Your task to perform on an android device: Open the calendar app, open the side menu, and click the "Day" option Image 0: 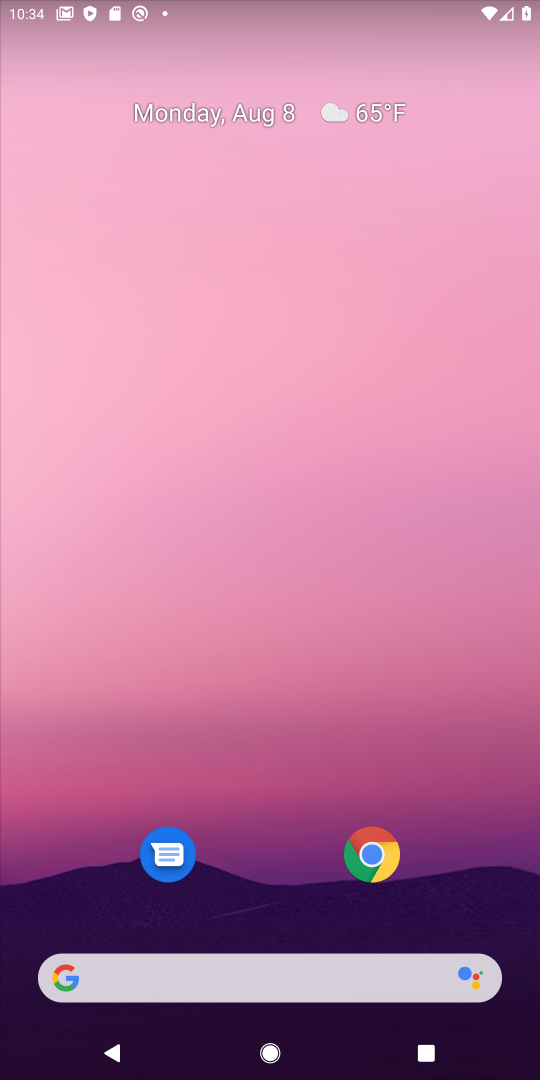
Step 0: click (202, 104)
Your task to perform on an android device: Open the calendar app, open the side menu, and click the "Day" option Image 1: 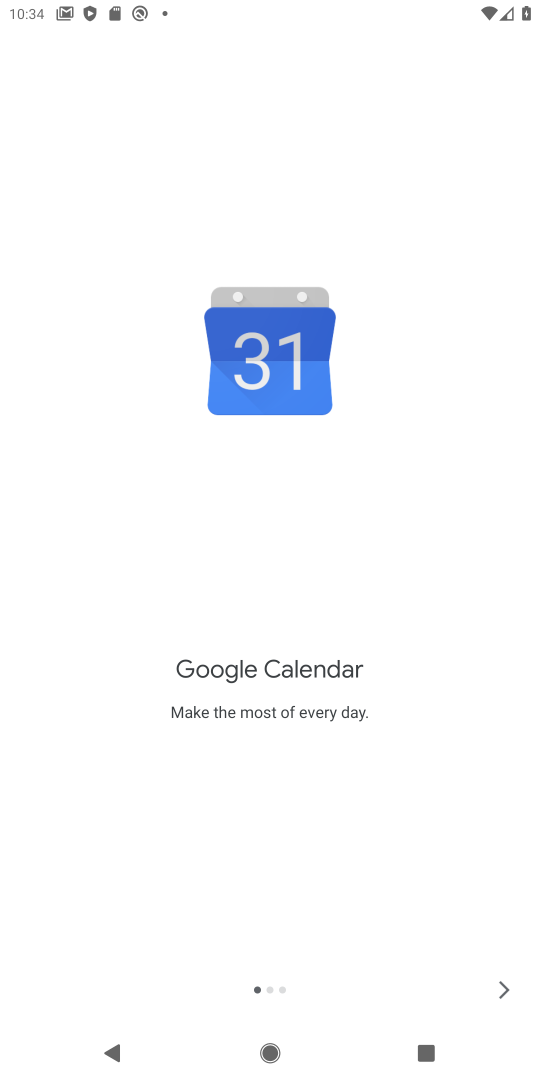
Step 1: click (497, 978)
Your task to perform on an android device: Open the calendar app, open the side menu, and click the "Day" option Image 2: 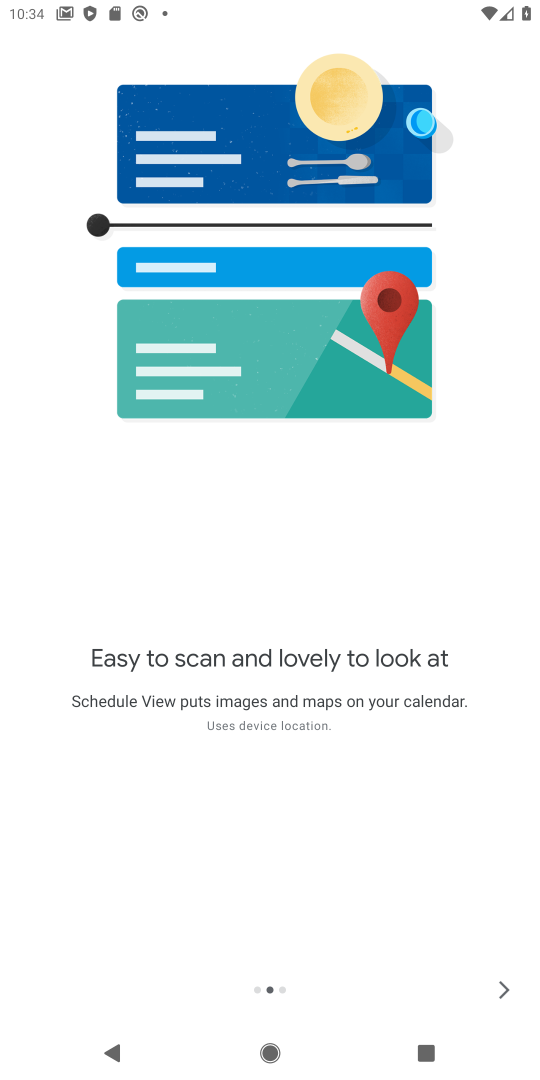
Step 2: click (497, 978)
Your task to perform on an android device: Open the calendar app, open the side menu, and click the "Day" option Image 3: 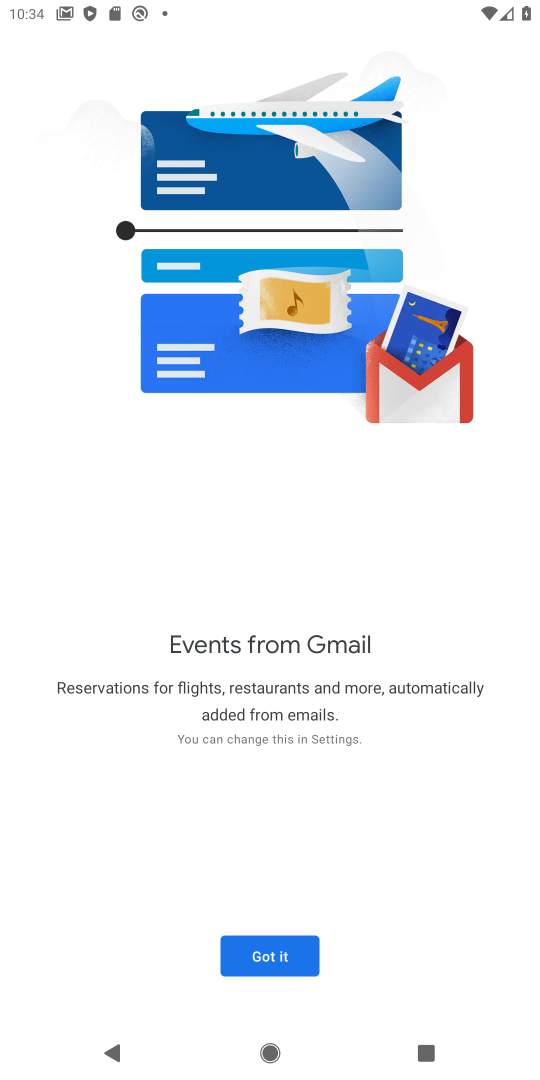
Step 3: click (497, 978)
Your task to perform on an android device: Open the calendar app, open the side menu, and click the "Day" option Image 4: 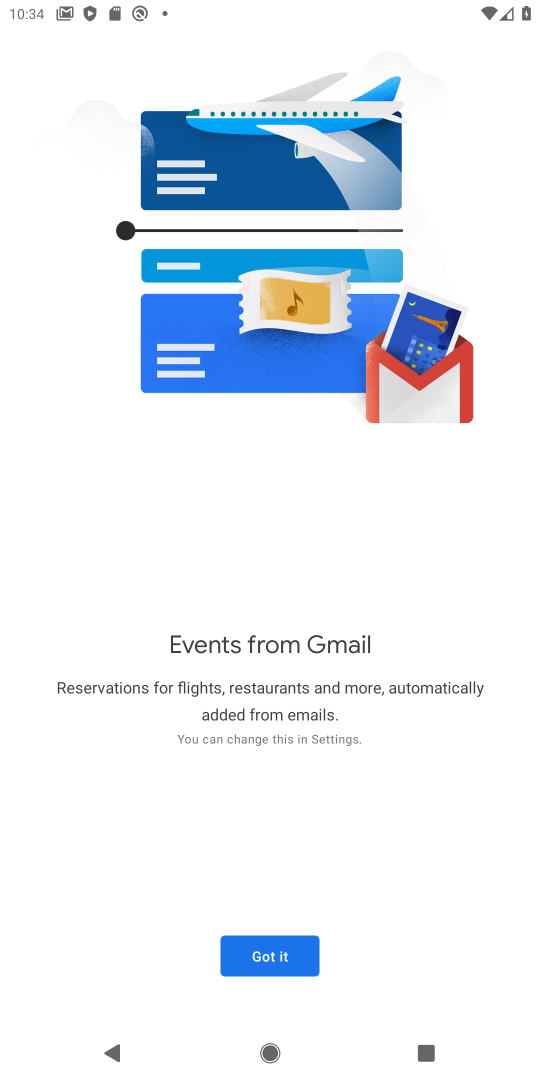
Step 4: click (497, 978)
Your task to perform on an android device: Open the calendar app, open the side menu, and click the "Day" option Image 5: 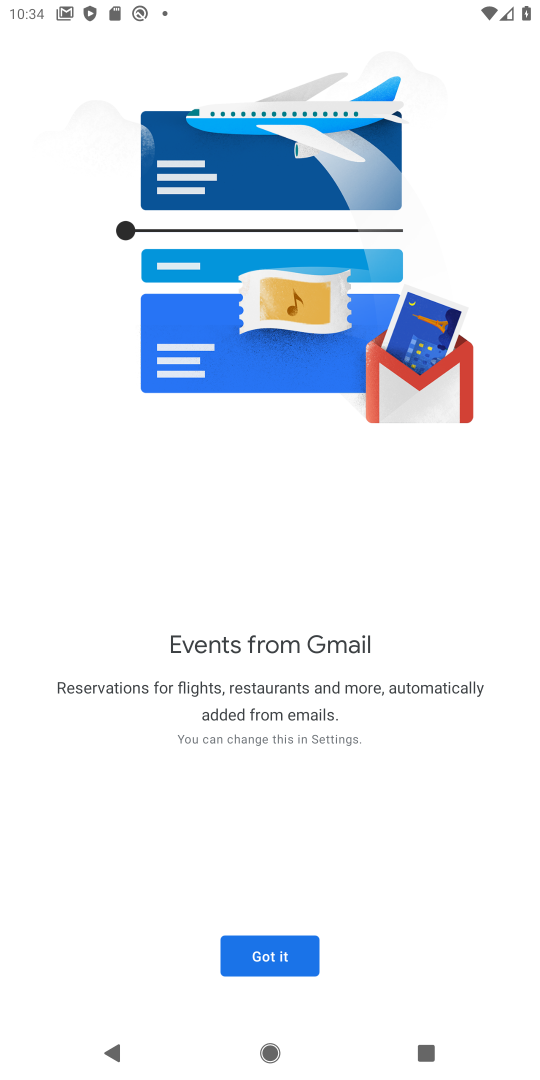
Step 5: click (497, 978)
Your task to perform on an android device: Open the calendar app, open the side menu, and click the "Day" option Image 6: 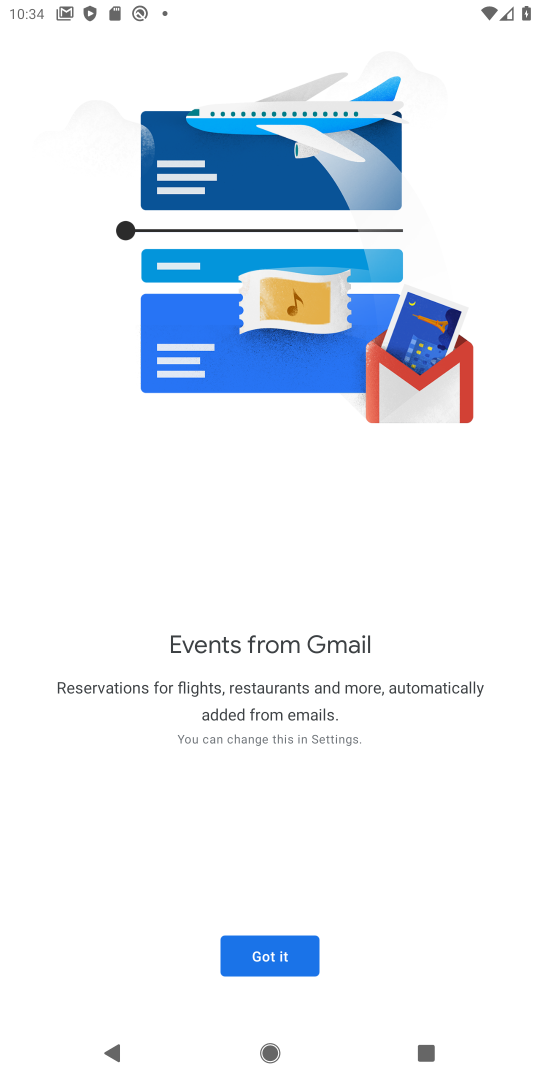
Step 6: click (264, 935)
Your task to perform on an android device: Open the calendar app, open the side menu, and click the "Day" option Image 7: 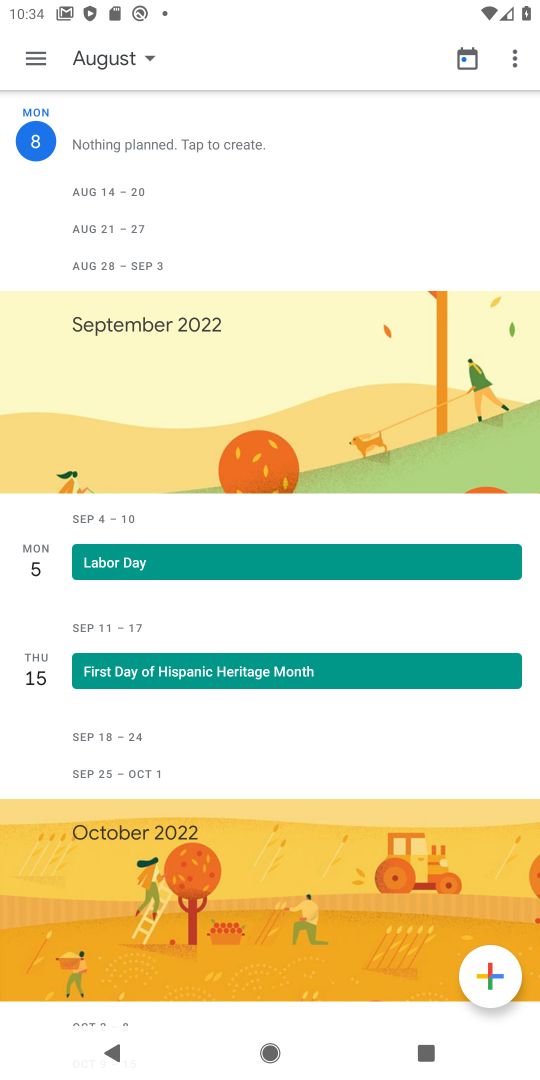
Step 7: click (53, 55)
Your task to perform on an android device: Open the calendar app, open the side menu, and click the "Day" option Image 8: 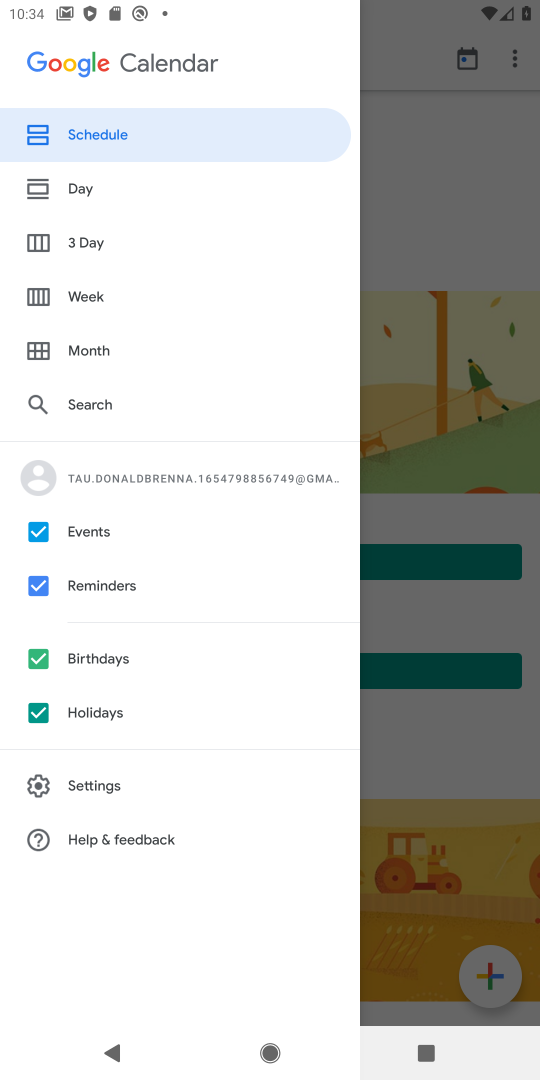
Step 8: click (101, 201)
Your task to perform on an android device: Open the calendar app, open the side menu, and click the "Day" option Image 9: 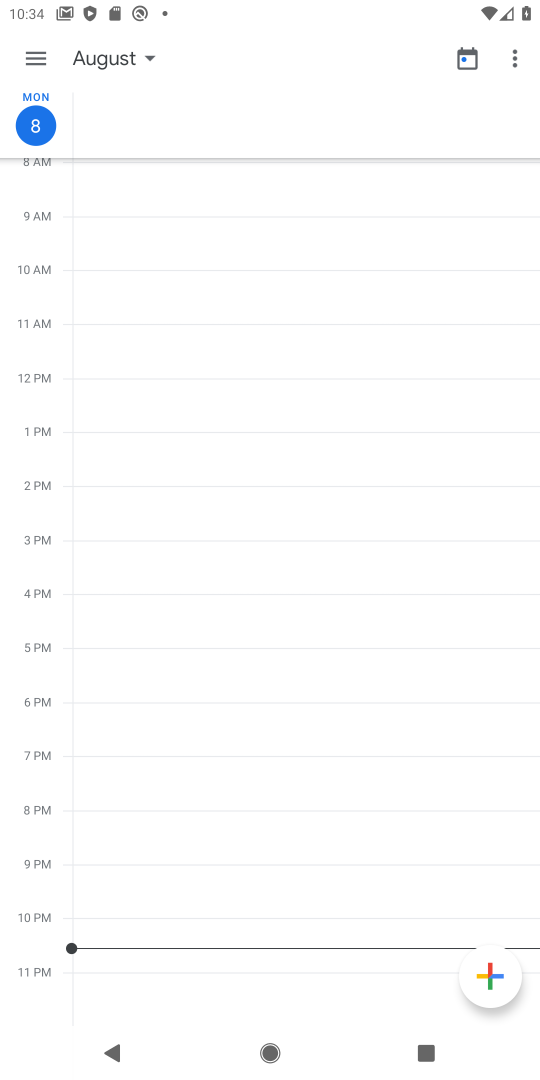
Step 9: task complete